Your task to perform on an android device: Go to Maps Image 0: 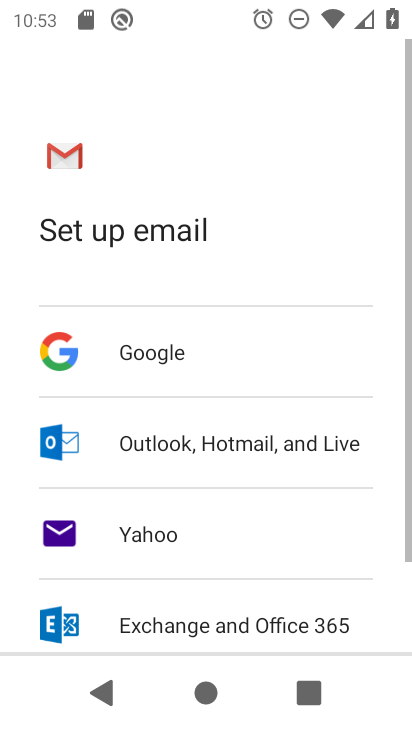
Step 0: press home button
Your task to perform on an android device: Go to Maps Image 1: 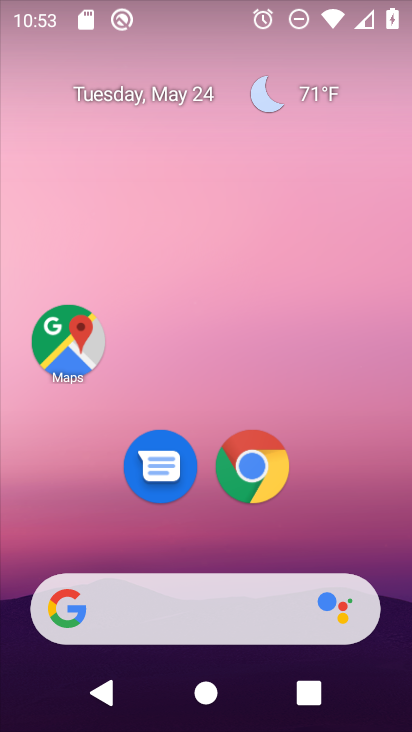
Step 1: drag from (191, 560) to (261, 31)
Your task to perform on an android device: Go to Maps Image 2: 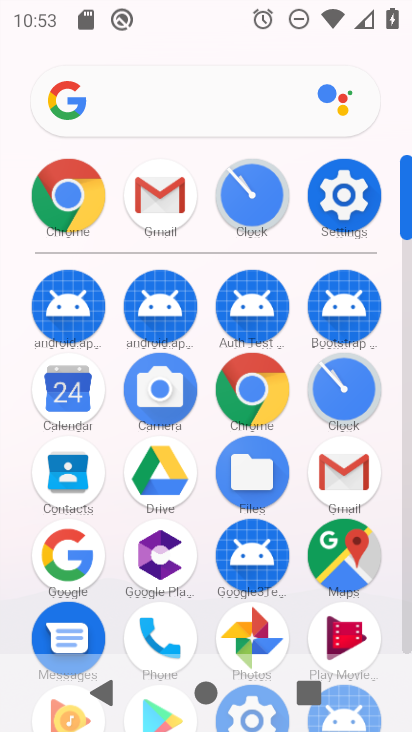
Step 2: click (356, 552)
Your task to perform on an android device: Go to Maps Image 3: 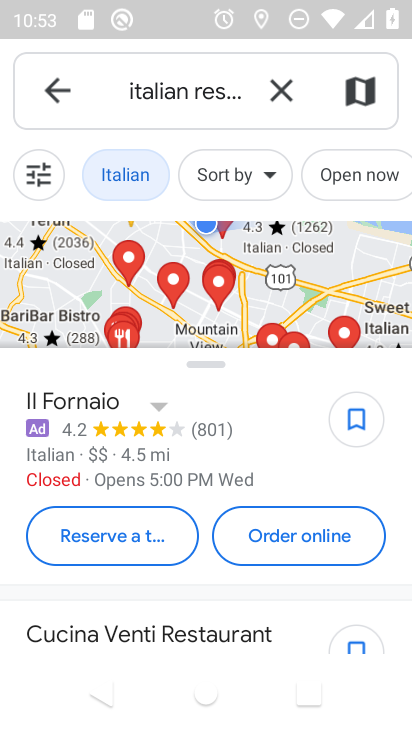
Step 3: click (59, 88)
Your task to perform on an android device: Go to Maps Image 4: 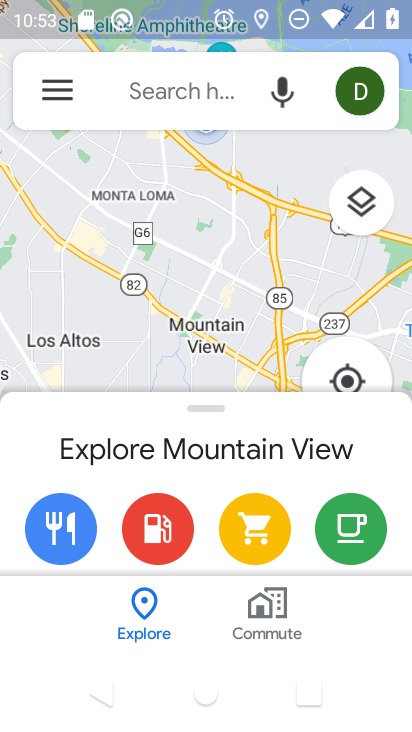
Step 4: task complete